Your task to perform on an android device: What's the weather today? Image 0: 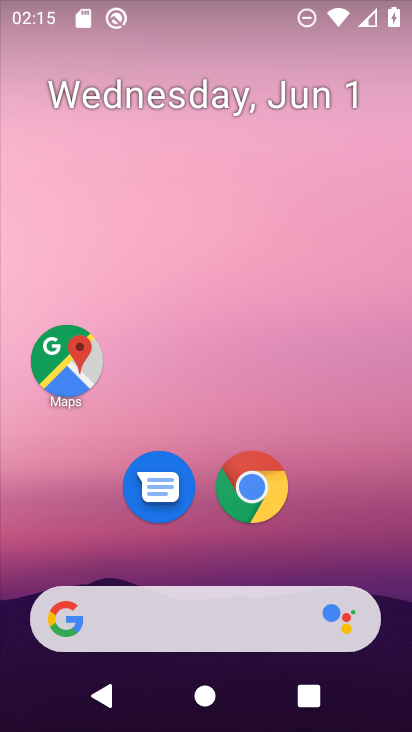
Step 0: drag from (277, 541) to (305, 254)
Your task to perform on an android device: What's the weather today? Image 1: 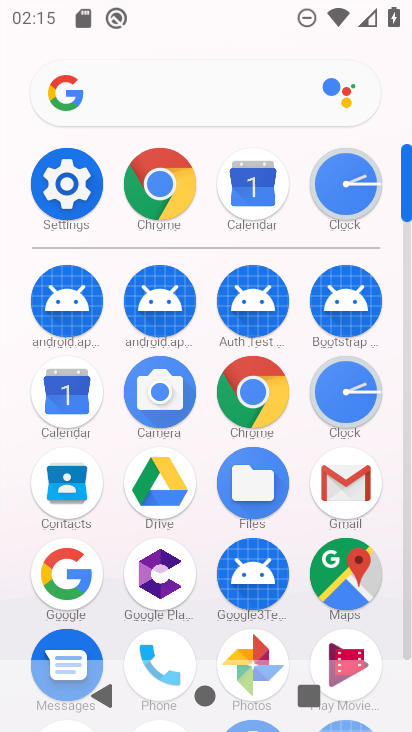
Step 1: click (139, 181)
Your task to perform on an android device: What's the weather today? Image 2: 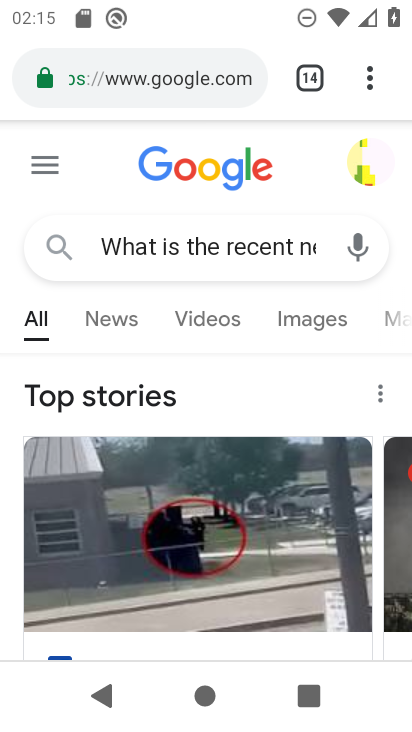
Step 2: click (384, 69)
Your task to perform on an android device: What's the weather today? Image 3: 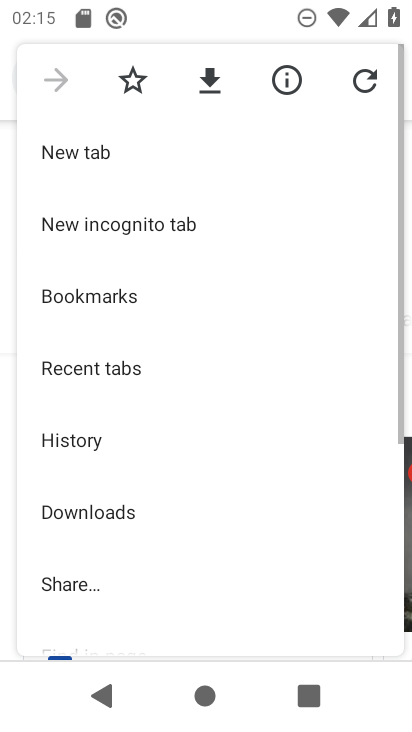
Step 3: click (116, 145)
Your task to perform on an android device: What's the weather today? Image 4: 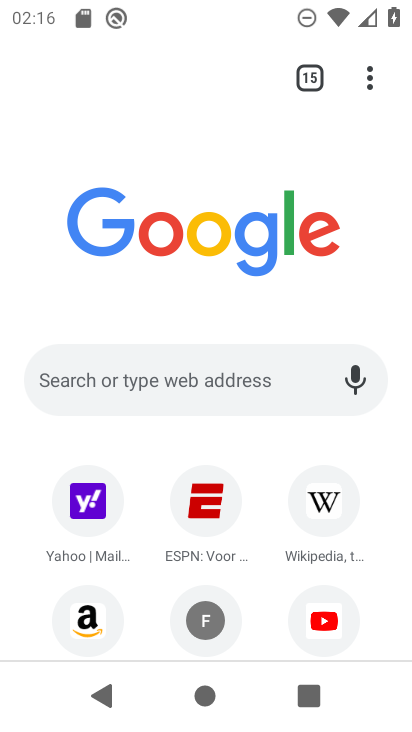
Step 4: click (210, 359)
Your task to perform on an android device: What's the weather today? Image 5: 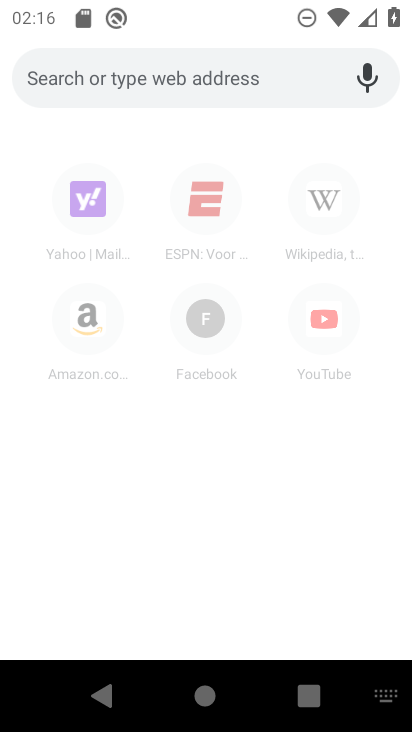
Step 5: type "What's the weather today?"
Your task to perform on an android device: What's the weather today? Image 6: 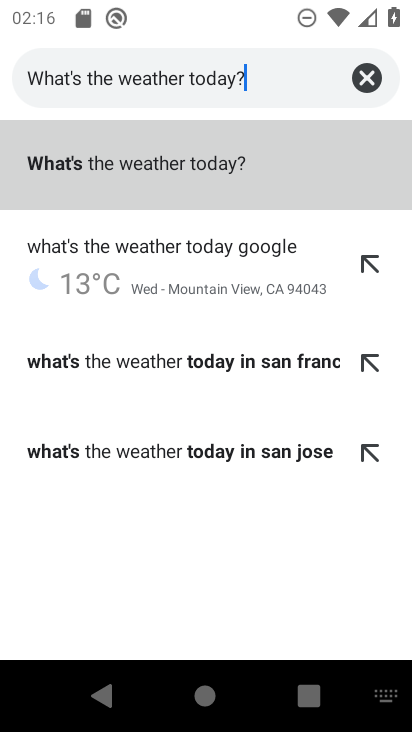
Step 6: click (209, 179)
Your task to perform on an android device: What's the weather today? Image 7: 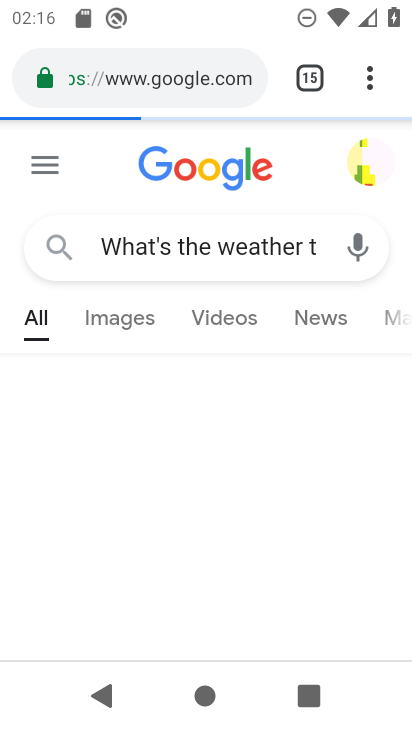
Step 7: task complete